Your task to perform on an android device: Open notification settings Image 0: 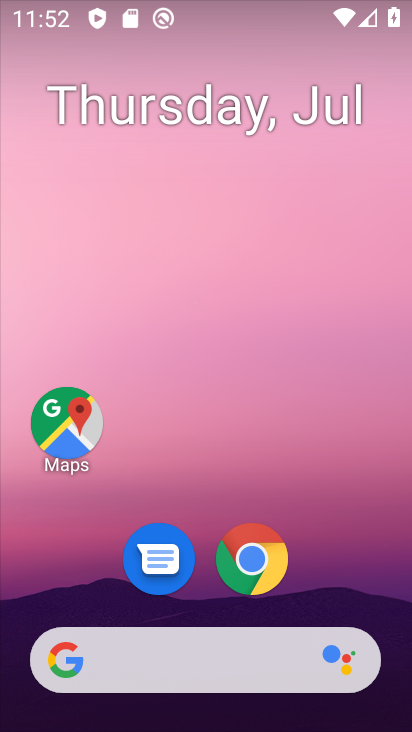
Step 0: drag from (353, 584) to (14, 717)
Your task to perform on an android device: Open notification settings Image 1: 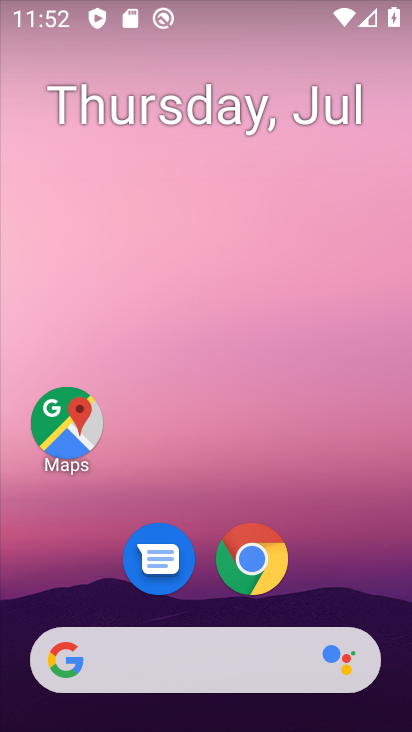
Step 1: drag from (343, 581) to (332, 83)
Your task to perform on an android device: Open notification settings Image 2: 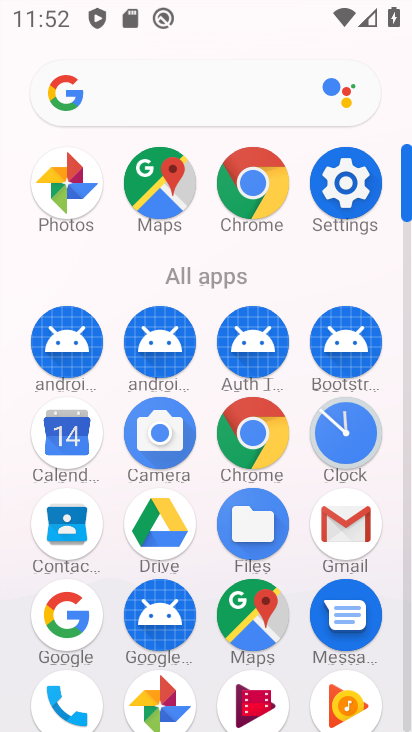
Step 2: click (355, 195)
Your task to perform on an android device: Open notification settings Image 3: 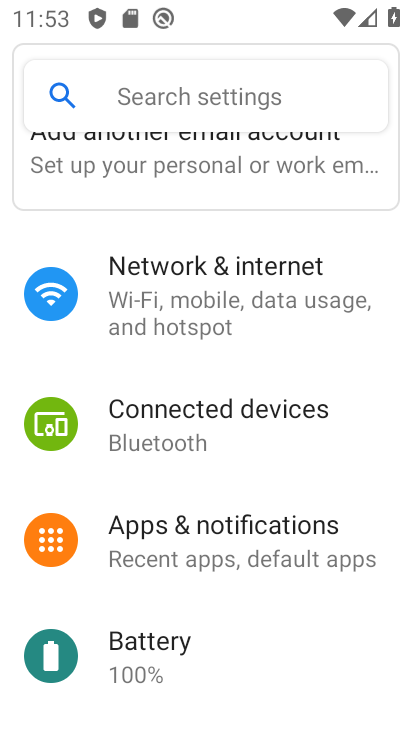
Step 3: drag from (348, 612) to (393, 403)
Your task to perform on an android device: Open notification settings Image 4: 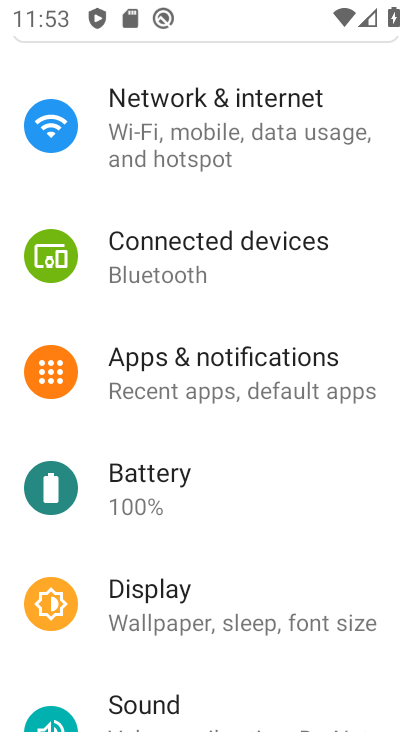
Step 4: drag from (331, 533) to (341, 430)
Your task to perform on an android device: Open notification settings Image 5: 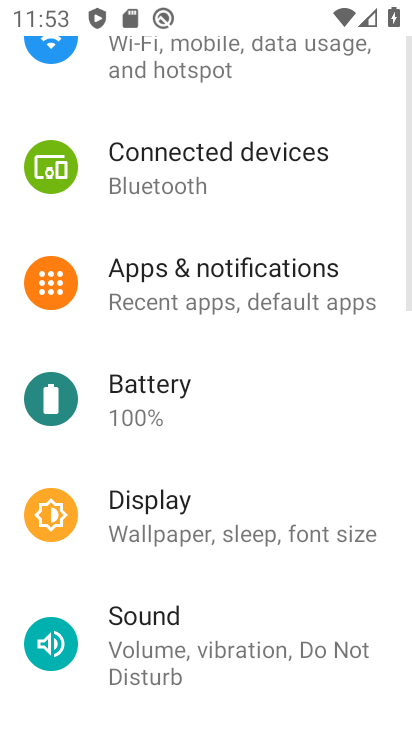
Step 5: drag from (354, 519) to (369, 356)
Your task to perform on an android device: Open notification settings Image 6: 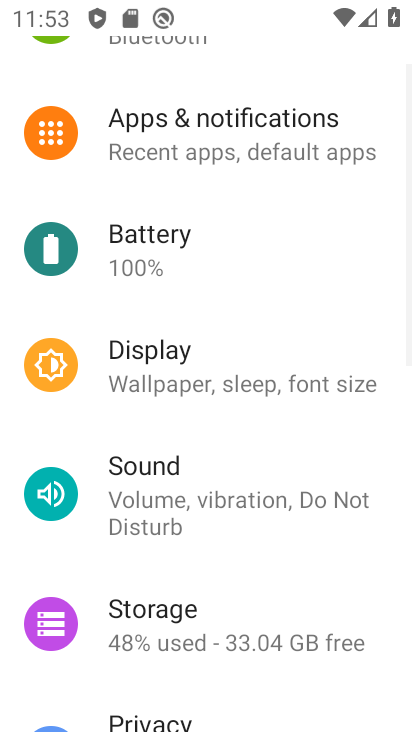
Step 6: drag from (371, 445) to (370, 340)
Your task to perform on an android device: Open notification settings Image 7: 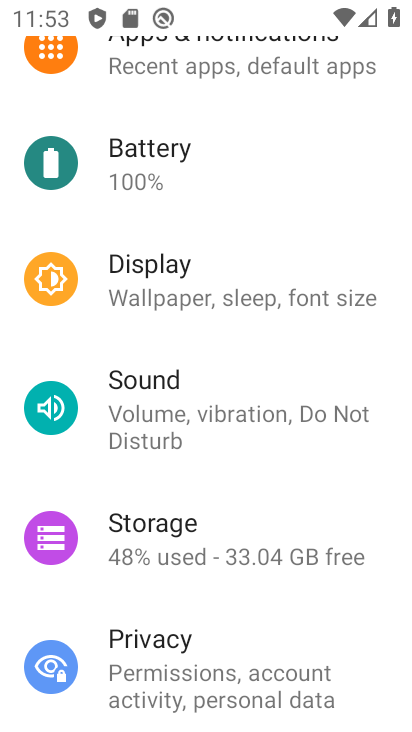
Step 7: drag from (357, 478) to (378, 207)
Your task to perform on an android device: Open notification settings Image 8: 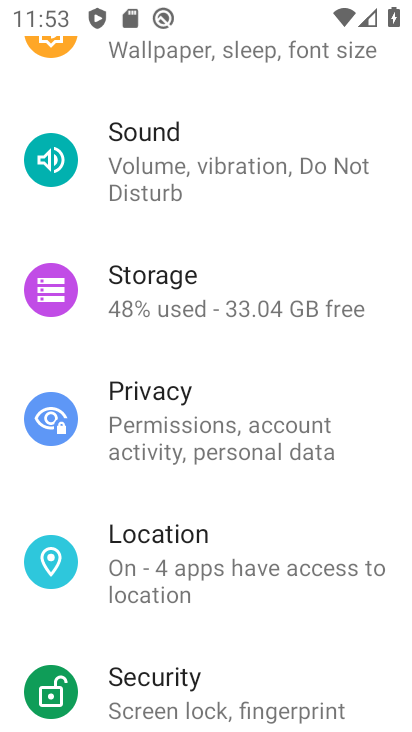
Step 8: drag from (377, 200) to (379, 434)
Your task to perform on an android device: Open notification settings Image 9: 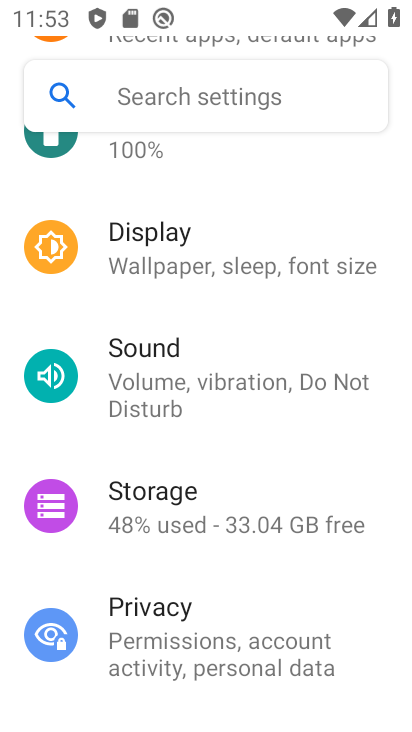
Step 9: drag from (381, 177) to (389, 285)
Your task to perform on an android device: Open notification settings Image 10: 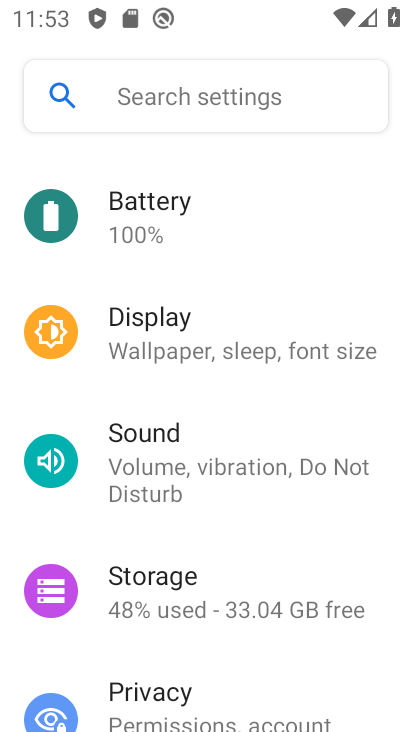
Step 10: drag from (369, 191) to (371, 303)
Your task to perform on an android device: Open notification settings Image 11: 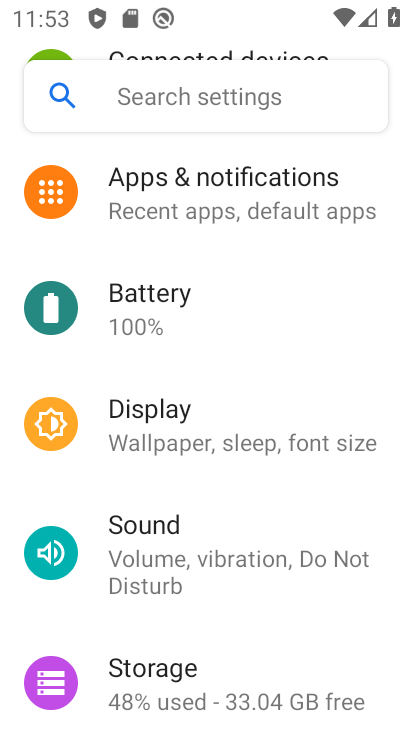
Step 11: drag from (369, 161) to (365, 332)
Your task to perform on an android device: Open notification settings Image 12: 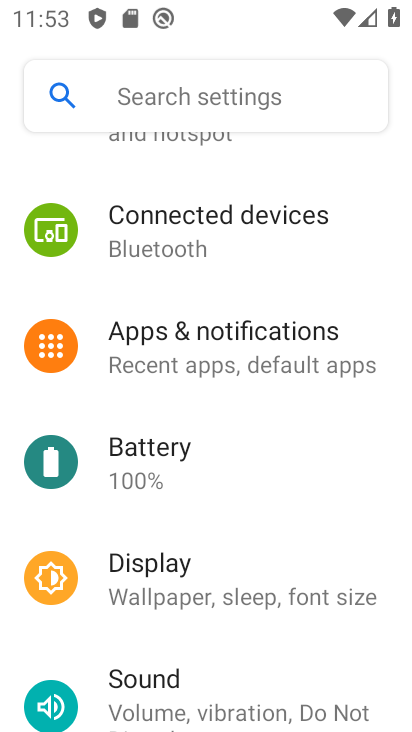
Step 12: click (302, 335)
Your task to perform on an android device: Open notification settings Image 13: 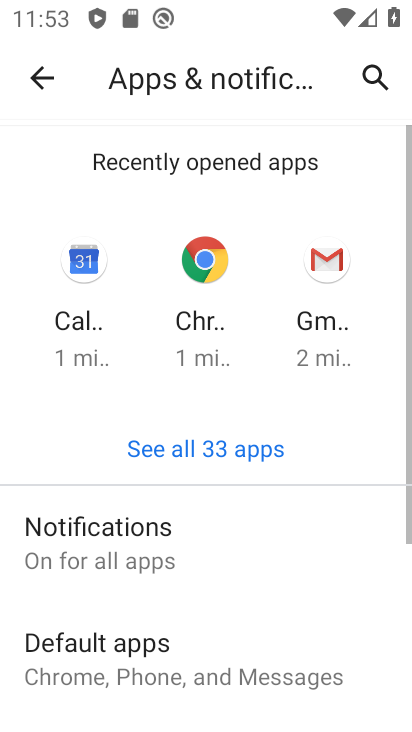
Step 13: drag from (282, 494) to (295, 364)
Your task to perform on an android device: Open notification settings Image 14: 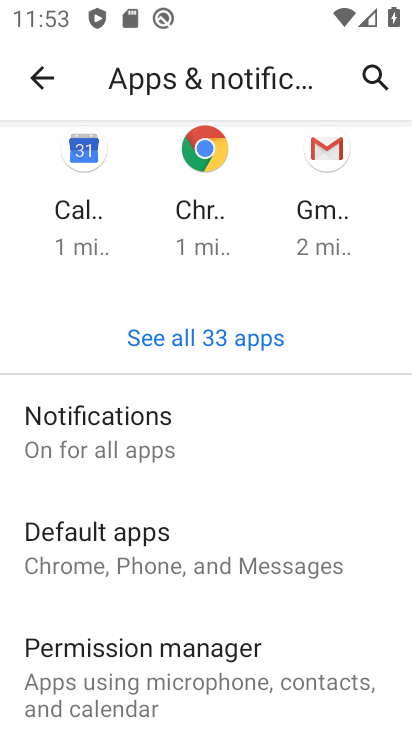
Step 14: drag from (298, 494) to (304, 380)
Your task to perform on an android device: Open notification settings Image 15: 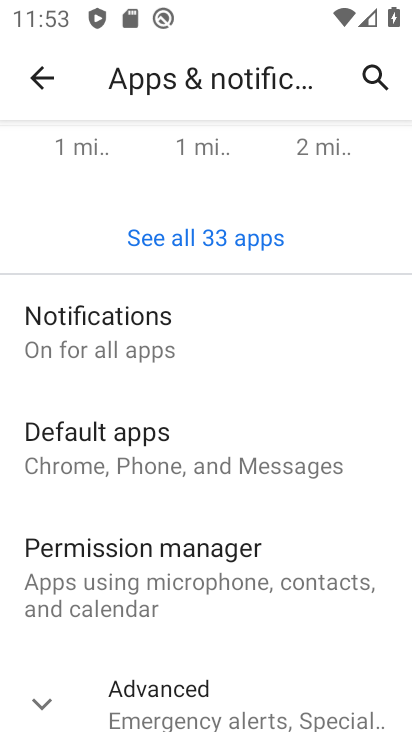
Step 15: click (189, 343)
Your task to perform on an android device: Open notification settings Image 16: 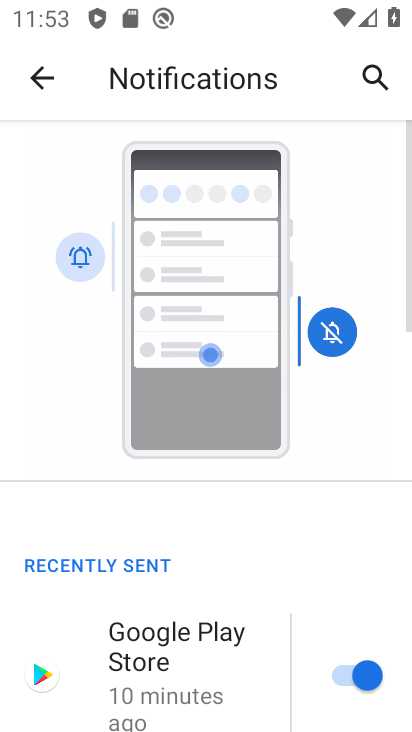
Step 16: task complete